Your task to perform on an android device: Open Google Maps Image 0: 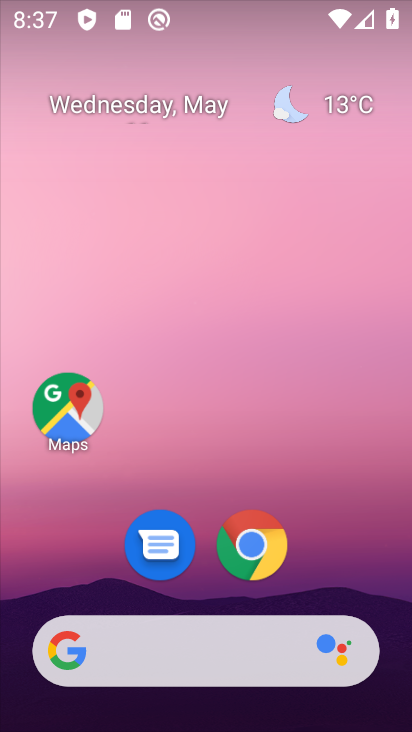
Step 0: drag from (324, 536) to (241, 3)
Your task to perform on an android device: Open Google Maps Image 1: 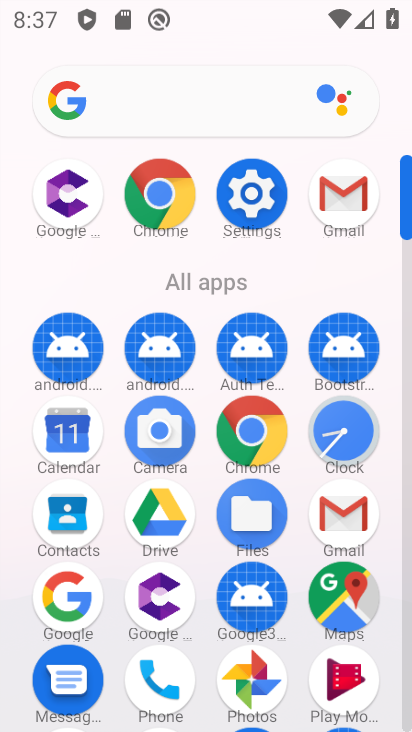
Step 1: drag from (3, 426) to (3, 243)
Your task to perform on an android device: Open Google Maps Image 2: 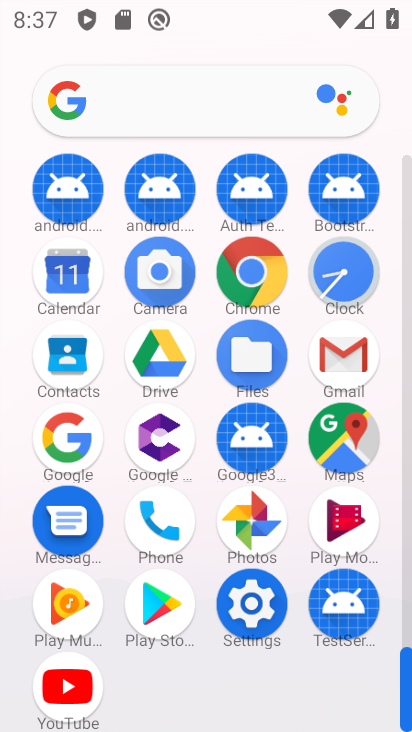
Step 2: click (339, 434)
Your task to perform on an android device: Open Google Maps Image 3: 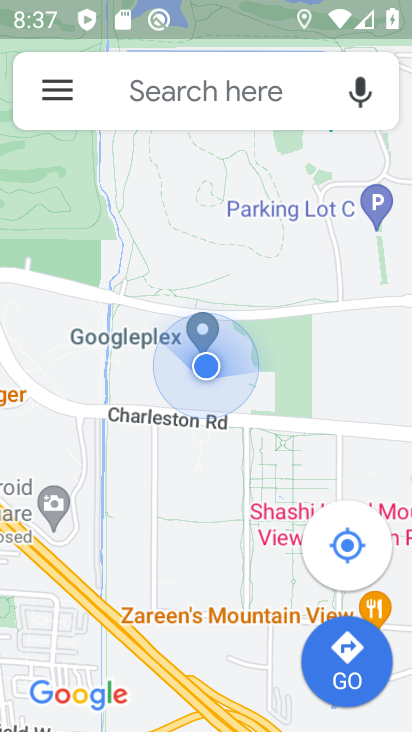
Step 3: task complete